Your task to perform on an android device: Check the weather Image 0: 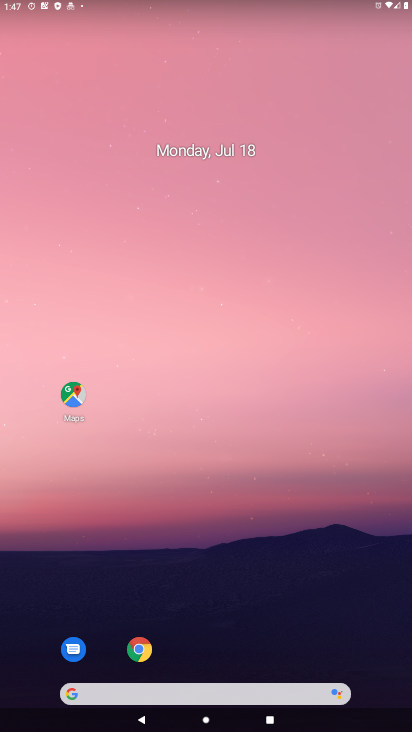
Step 0: drag from (233, 660) to (170, 47)
Your task to perform on an android device: Check the weather Image 1: 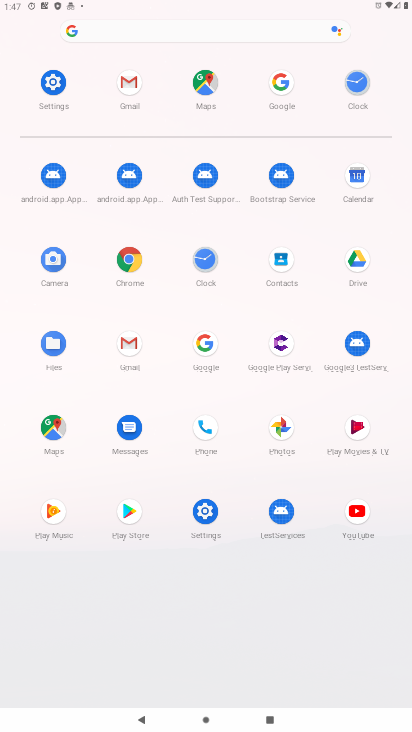
Step 1: click (205, 348)
Your task to perform on an android device: Check the weather Image 2: 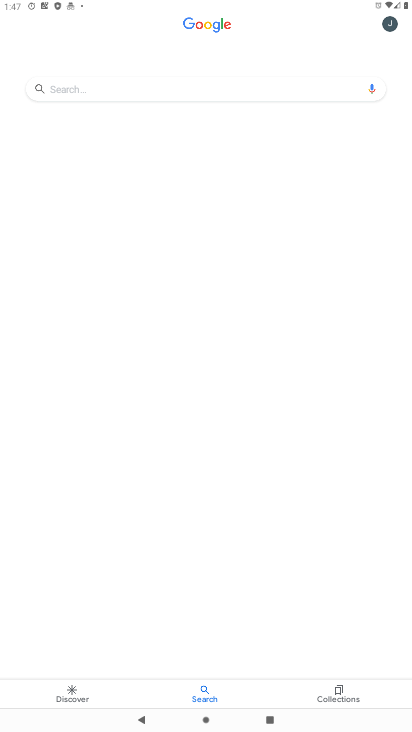
Step 2: click (214, 82)
Your task to perform on an android device: Check the weather Image 3: 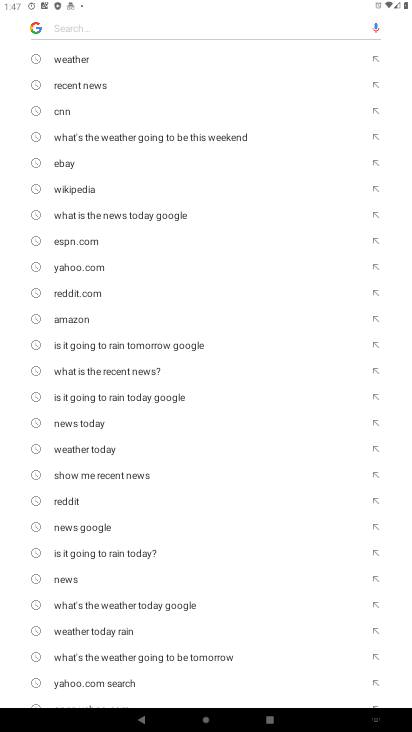
Step 3: click (55, 56)
Your task to perform on an android device: Check the weather Image 4: 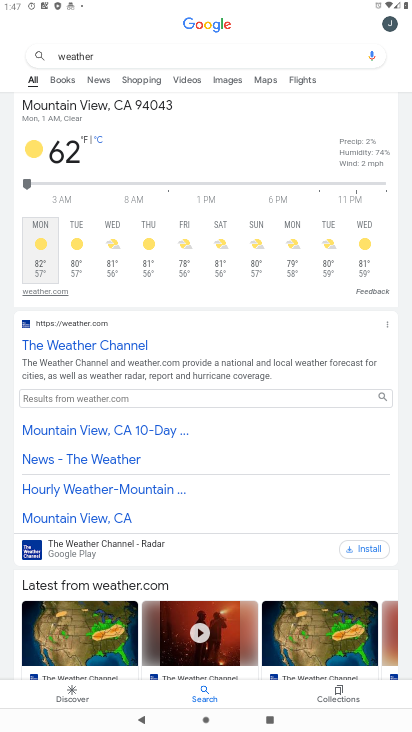
Step 4: task complete